Your task to perform on an android device: Open the web browser Image 0: 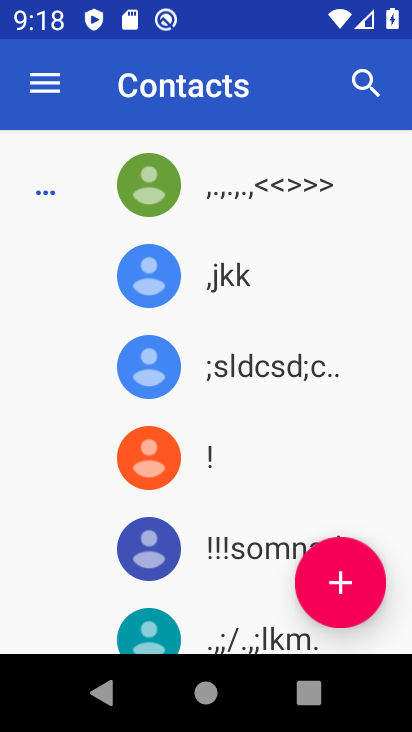
Step 0: press home button
Your task to perform on an android device: Open the web browser Image 1: 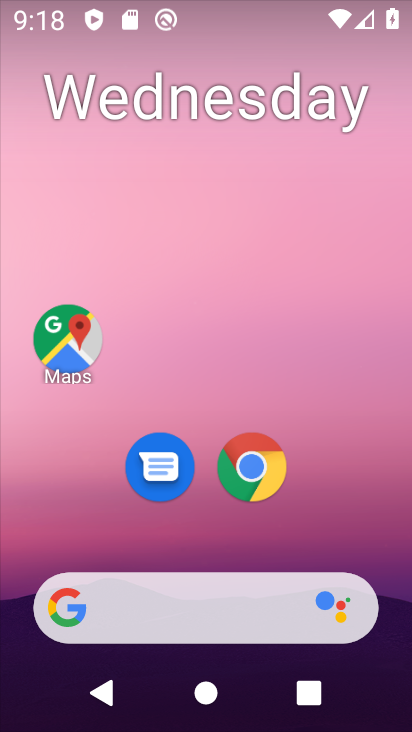
Step 1: click (257, 471)
Your task to perform on an android device: Open the web browser Image 2: 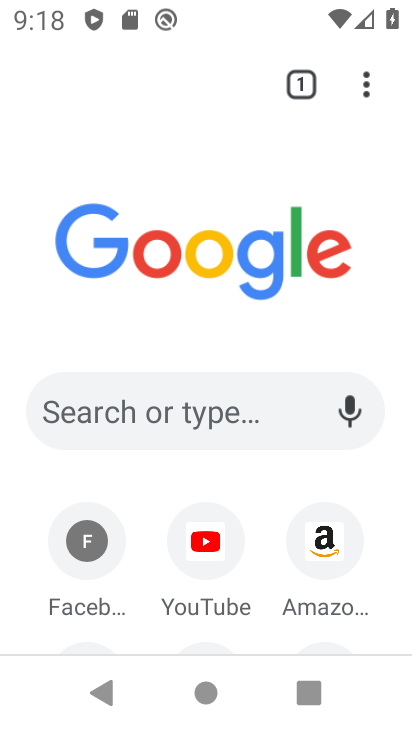
Step 2: task complete